Your task to perform on an android device: star an email in the gmail app Image 0: 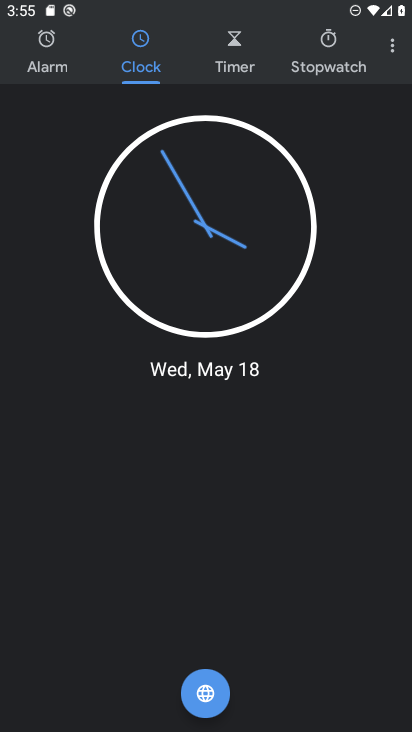
Step 0: press home button
Your task to perform on an android device: star an email in the gmail app Image 1: 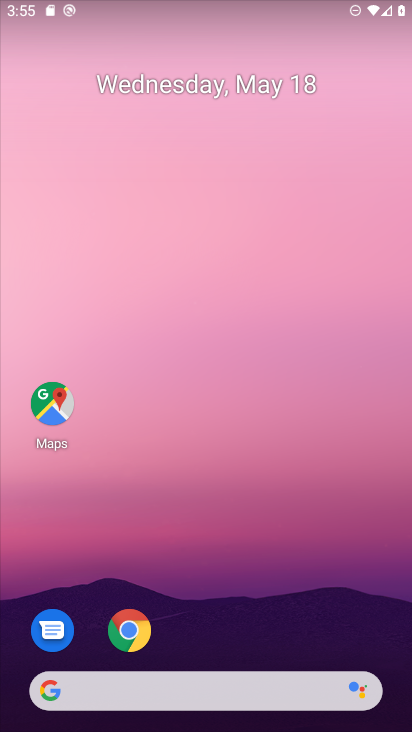
Step 1: drag from (210, 657) to (220, 302)
Your task to perform on an android device: star an email in the gmail app Image 2: 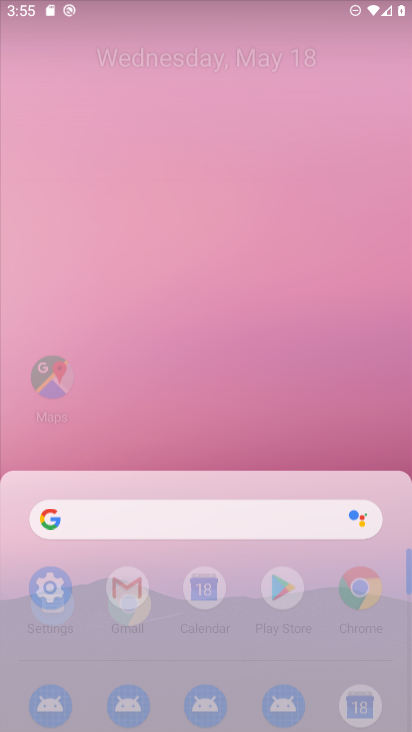
Step 2: click (236, 82)
Your task to perform on an android device: star an email in the gmail app Image 3: 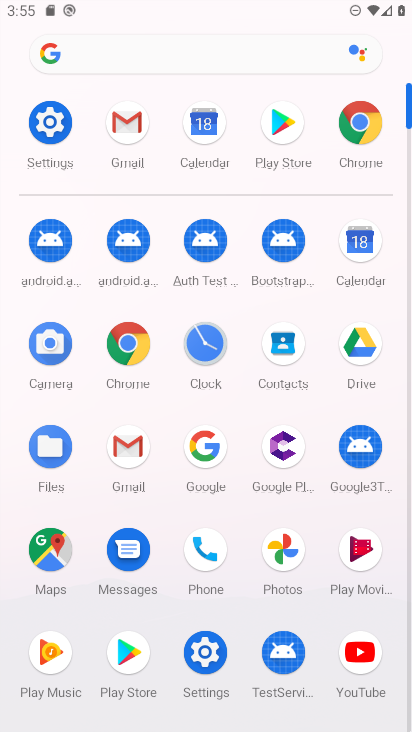
Step 3: click (122, 117)
Your task to perform on an android device: star an email in the gmail app Image 4: 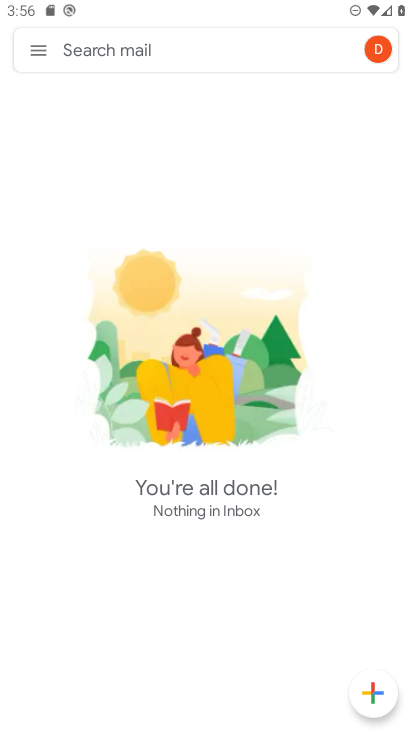
Step 4: task complete